Your task to perform on an android device: turn off sleep mode Image 0: 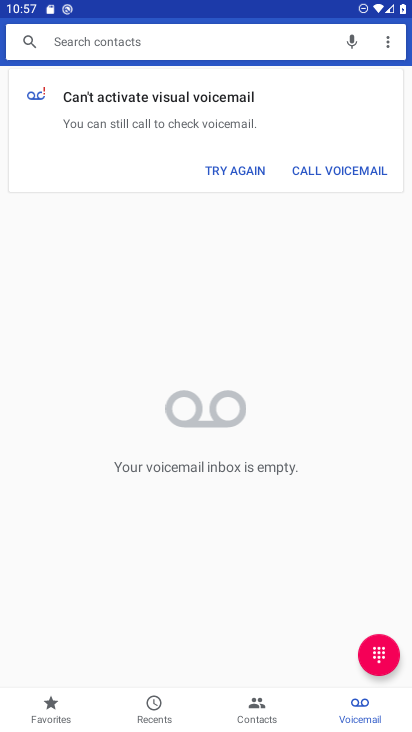
Step 0: press back button
Your task to perform on an android device: turn off sleep mode Image 1: 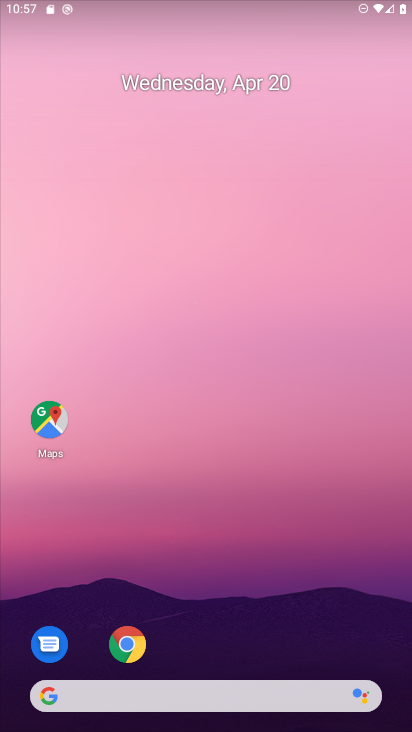
Step 1: drag from (307, 604) to (215, 48)
Your task to perform on an android device: turn off sleep mode Image 2: 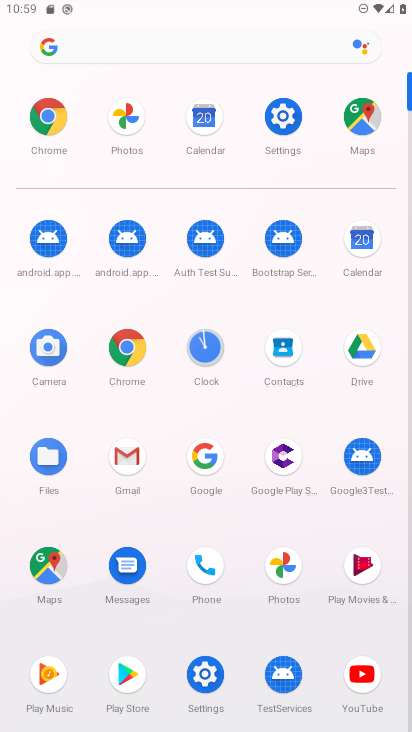
Step 2: click (197, 665)
Your task to perform on an android device: turn off sleep mode Image 3: 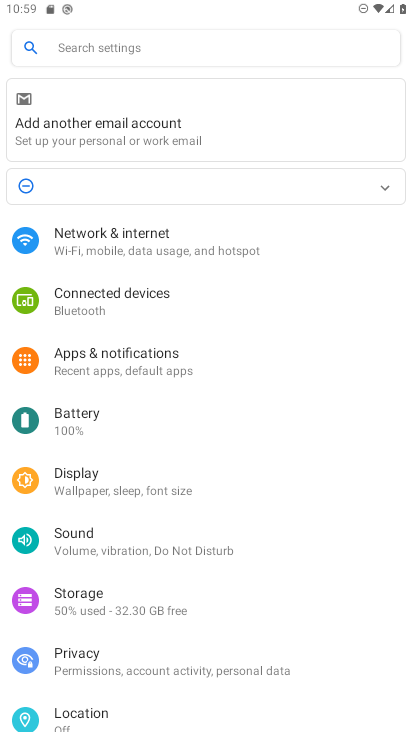
Step 3: task complete